Your task to perform on an android device: Go to eBay Image 0: 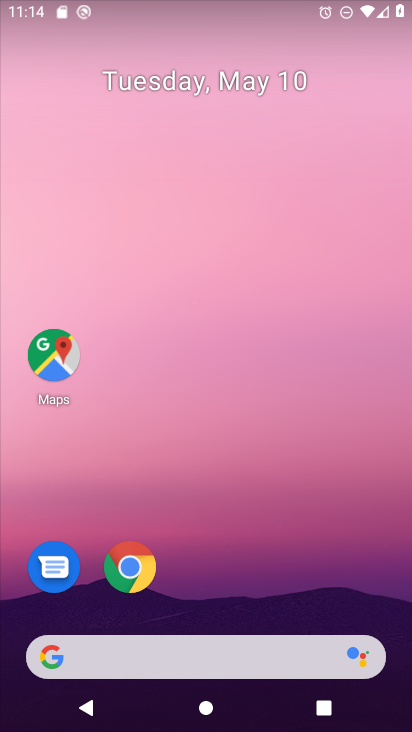
Step 0: click (155, 569)
Your task to perform on an android device: Go to eBay Image 1: 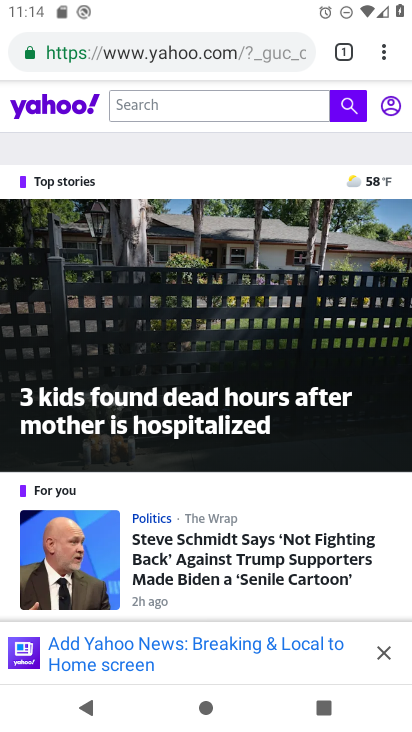
Step 1: click (218, 59)
Your task to perform on an android device: Go to eBay Image 2: 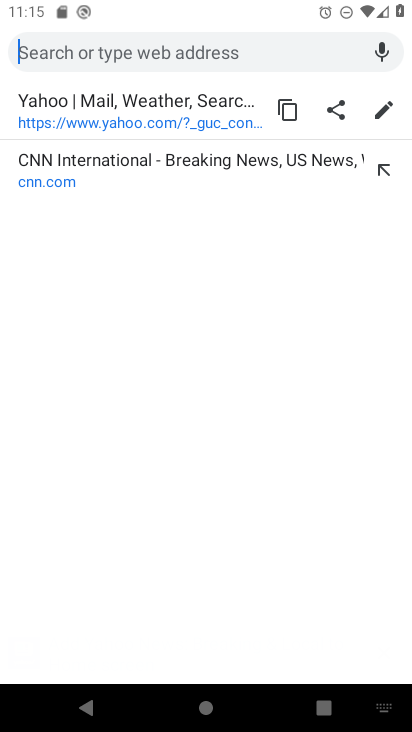
Step 2: type "ebay"
Your task to perform on an android device: Go to eBay Image 3: 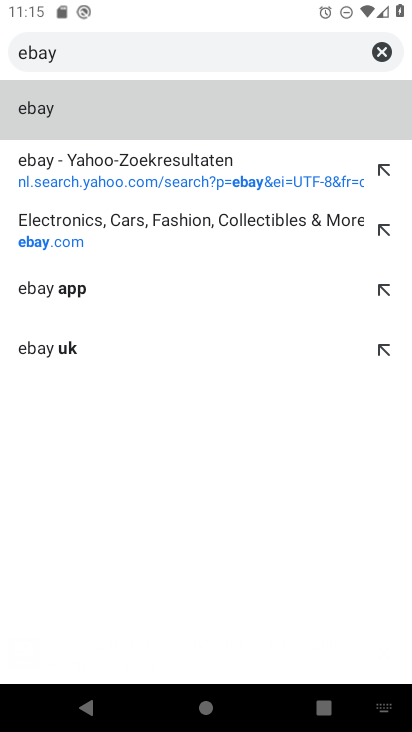
Step 3: click (36, 176)
Your task to perform on an android device: Go to eBay Image 4: 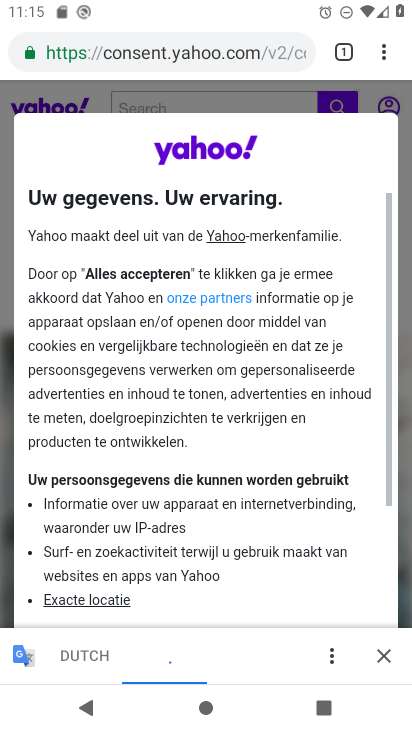
Step 4: click (229, 54)
Your task to perform on an android device: Go to eBay Image 5: 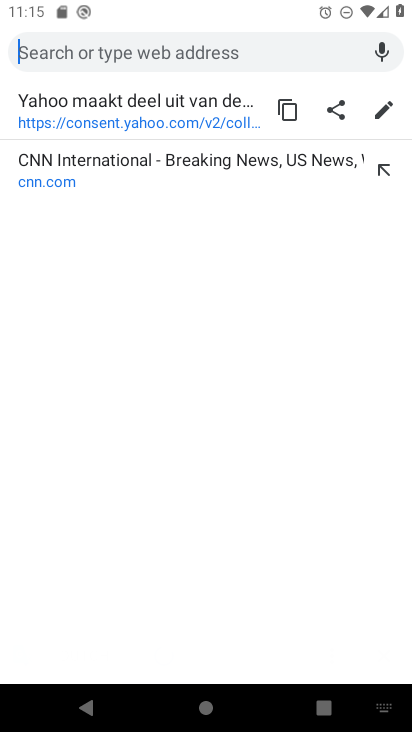
Step 5: type "ebay"
Your task to perform on an android device: Go to eBay Image 6: 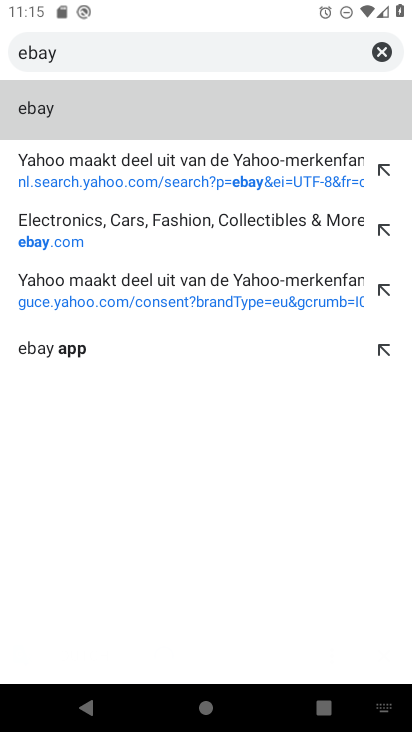
Step 6: click (54, 115)
Your task to perform on an android device: Go to eBay Image 7: 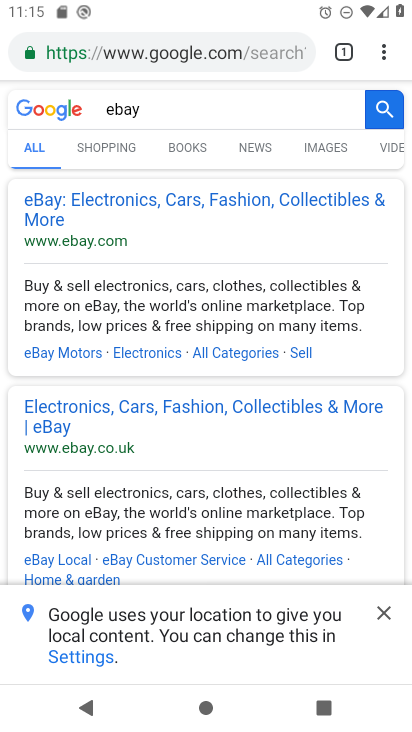
Step 7: click (112, 210)
Your task to perform on an android device: Go to eBay Image 8: 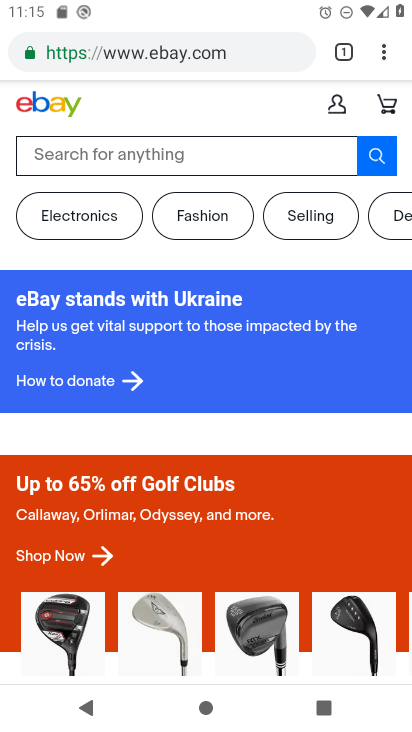
Step 8: task complete